Your task to perform on an android device: add a label to a message in the gmail app Image 0: 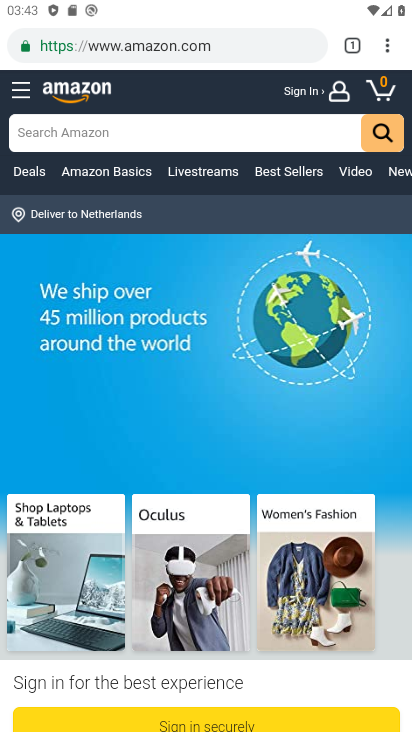
Step 0: press home button
Your task to perform on an android device: add a label to a message in the gmail app Image 1: 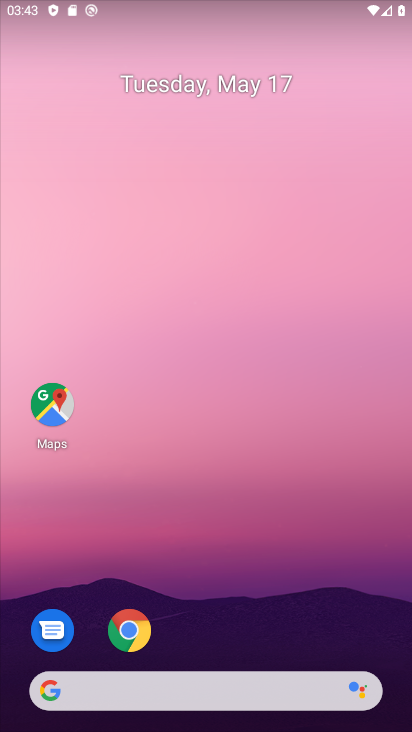
Step 1: drag from (146, 660) to (238, 207)
Your task to perform on an android device: add a label to a message in the gmail app Image 2: 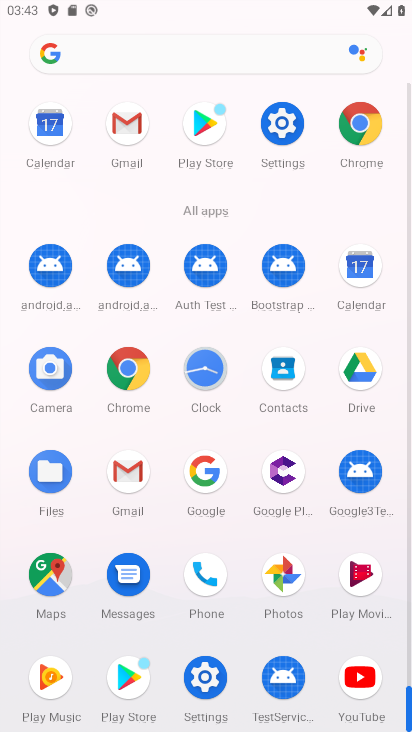
Step 2: click (140, 470)
Your task to perform on an android device: add a label to a message in the gmail app Image 3: 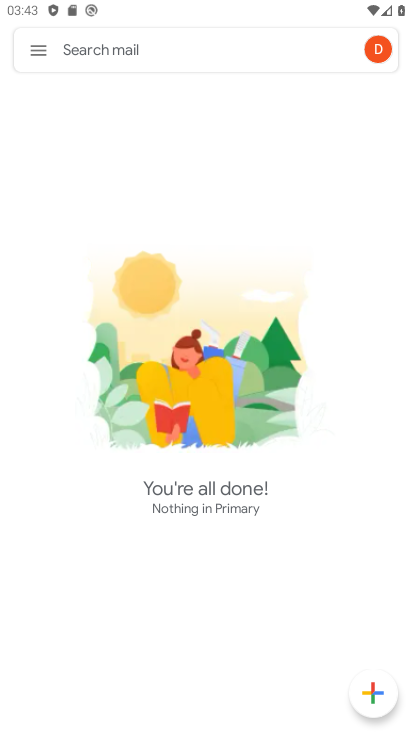
Step 3: click (63, 51)
Your task to perform on an android device: add a label to a message in the gmail app Image 4: 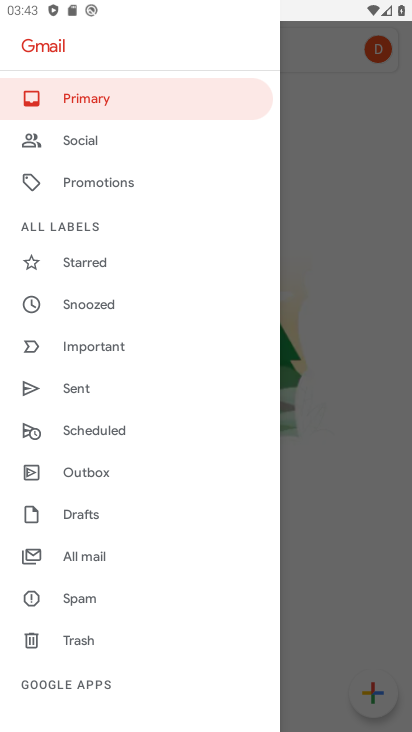
Step 4: click (113, 559)
Your task to perform on an android device: add a label to a message in the gmail app Image 5: 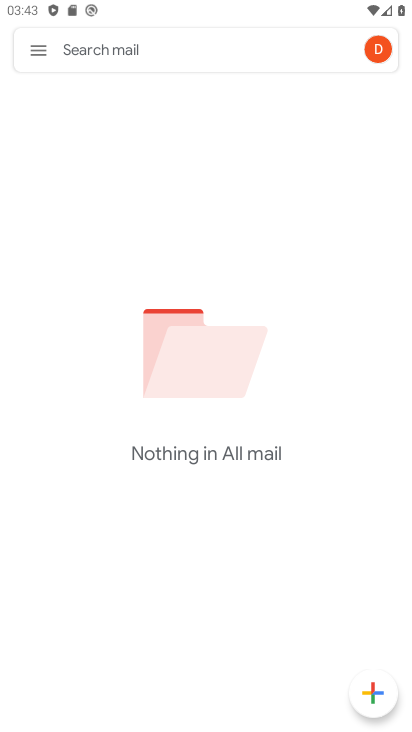
Step 5: task complete